Your task to perform on an android device: change notification settings in the gmail app Image 0: 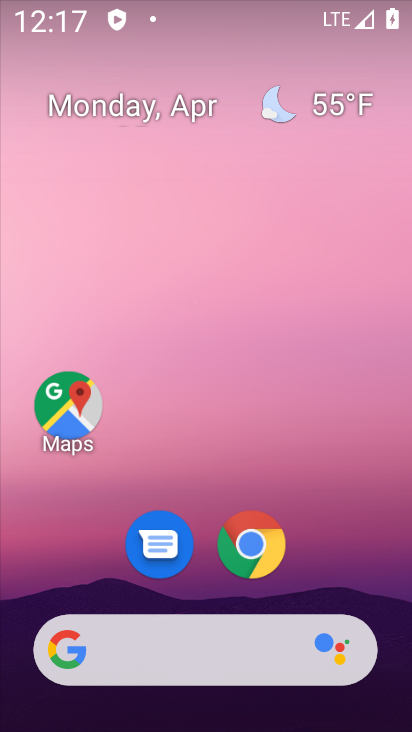
Step 0: drag from (293, 488) to (120, 79)
Your task to perform on an android device: change notification settings in the gmail app Image 1: 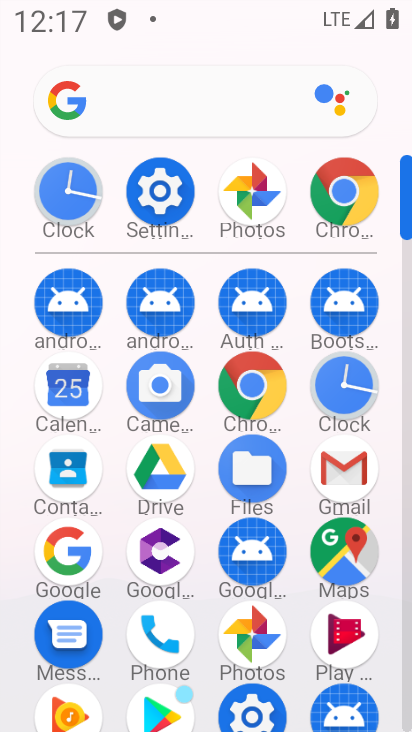
Step 1: click (339, 473)
Your task to perform on an android device: change notification settings in the gmail app Image 2: 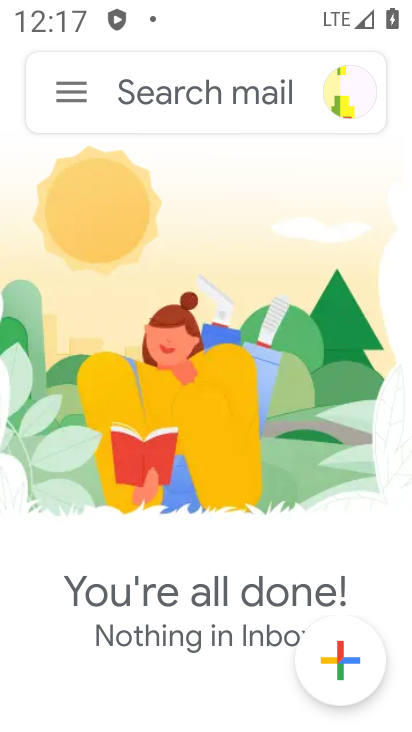
Step 2: click (66, 91)
Your task to perform on an android device: change notification settings in the gmail app Image 3: 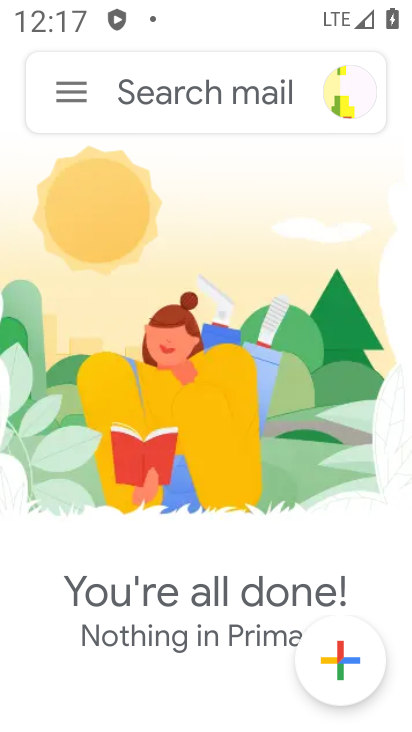
Step 3: click (71, 87)
Your task to perform on an android device: change notification settings in the gmail app Image 4: 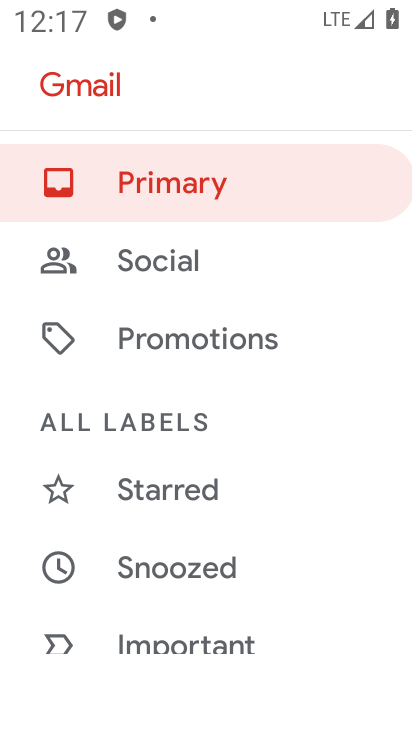
Step 4: drag from (258, 585) to (163, 131)
Your task to perform on an android device: change notification settings in the gmail app Image 5: 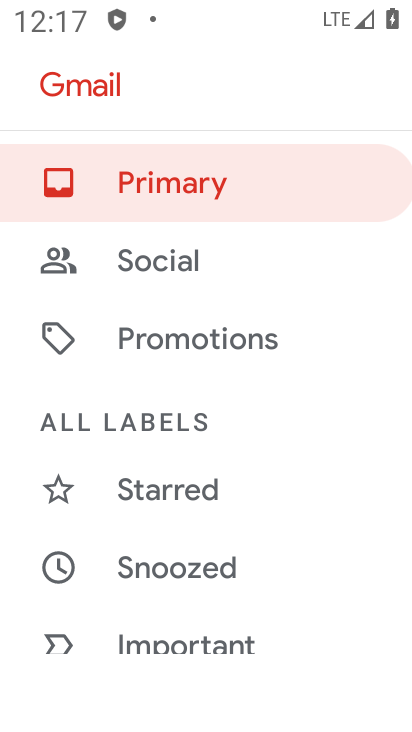
Step 5: drag from (197, 628) to (193, 139)
Your task to perform on an android device: change notification settings in the gmail app Image 6: 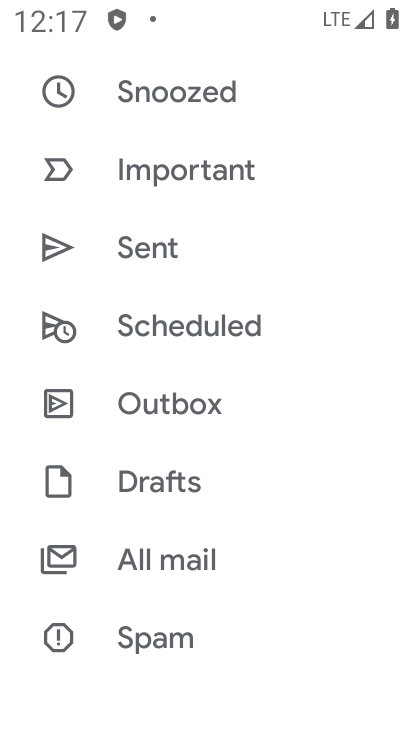
Step 6: drag from (258, 628) to (266, 119)
Your task to perform on an android device: change notification settings in the gmail app Image 7: 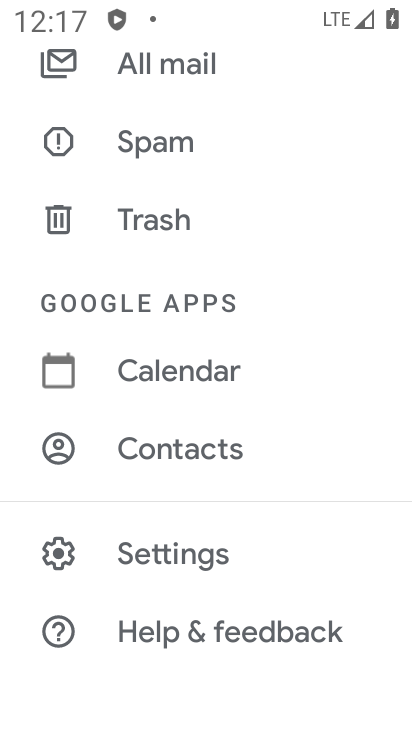
Step 7: click (140, 550)
Your task to perform on an android device: change notification settings in the gmail app Image 8: 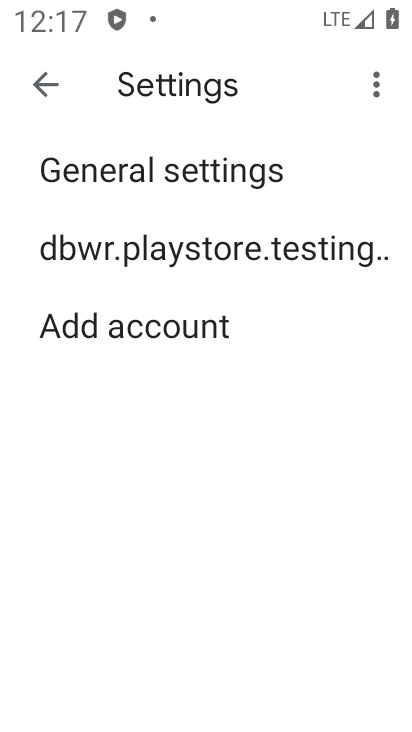
Step 8: click (200, 256)
Your task to perform on an android device: change notification settings in the gmail app Image 9: 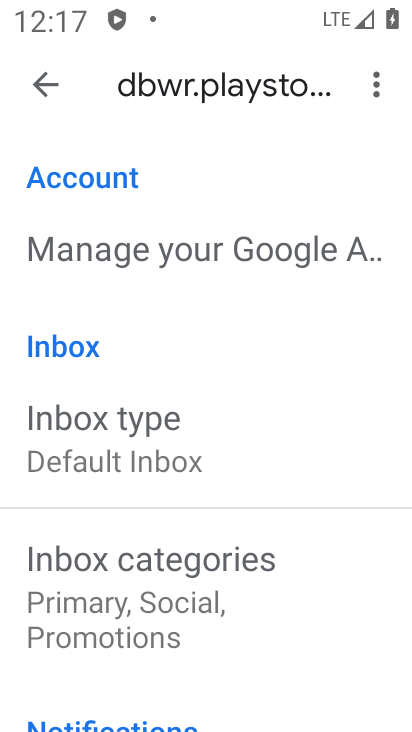
Step 9: drag from (184, 661) to (171, 193)
Your task to perform on an android device: change notification settings in the gmail app Image 10: 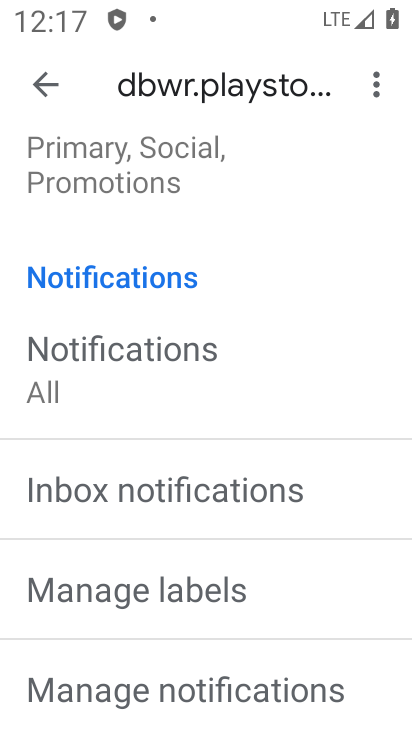
Step 10: drag from (145, 693) to (123, 425)
Your task to perform on an android device: change notification settings in the gmail app Image 11: 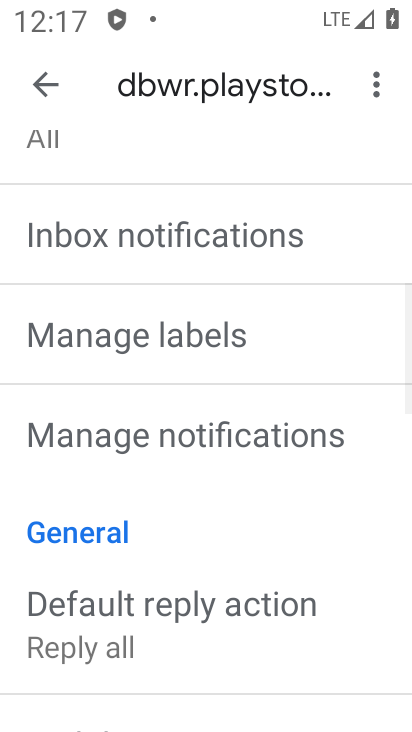
Step 11: click (115, 436)
Your task to perform on an android device: change notification settings in the gmail app Image 12: 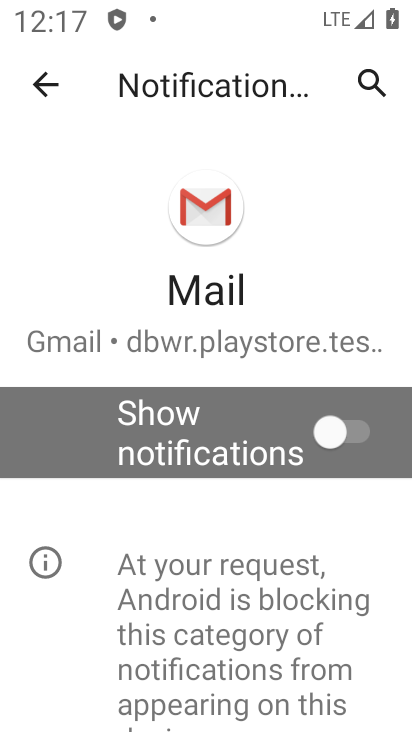
Step 12: click (331, 435)
Your task to perform on an android device: change notification settings in the gmail app Image 13: 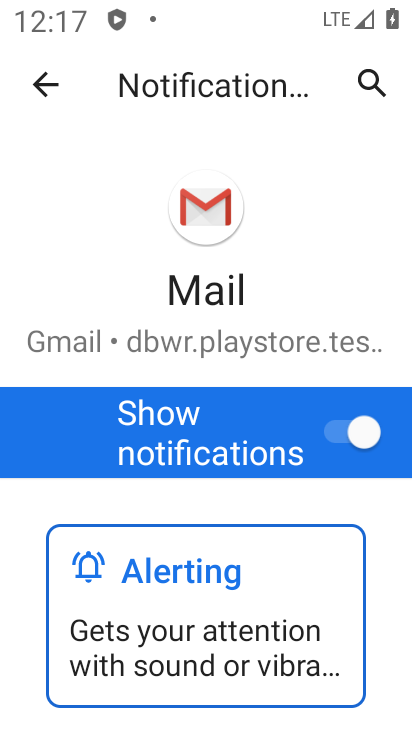
Step 13: task complete